Your task to perform on an android device: Open Google Maps and go to "Timeline" Image 0: 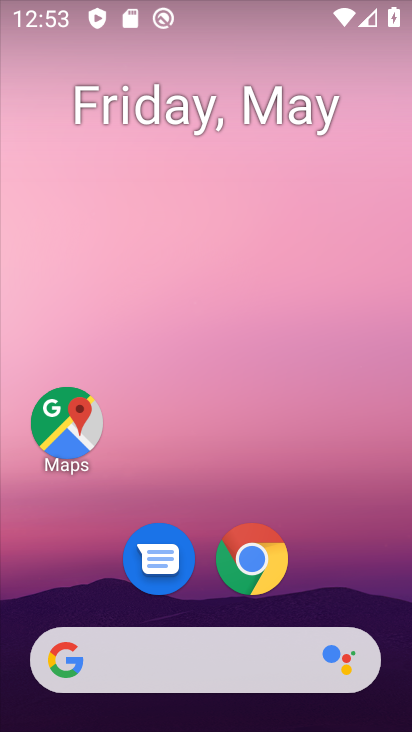
Step 0: click (60, 418)
Your task to perform on an android device: Open Google Maps and go to "Timeline" Image 1: 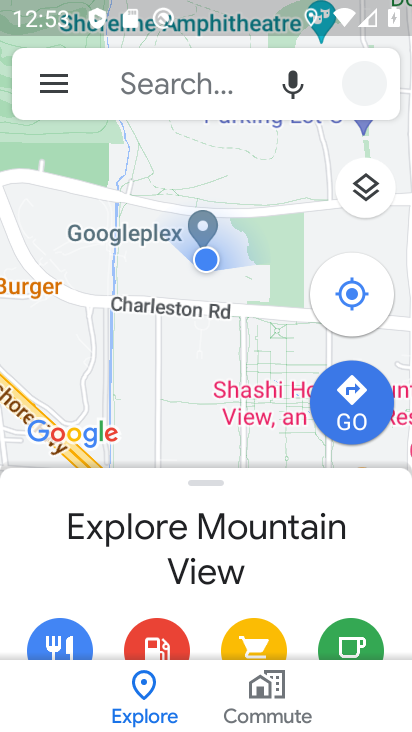
Step 1: click (24, 70)
Your task to perform on an android device: Open Google Maps and go to "Timeline" Image 2: 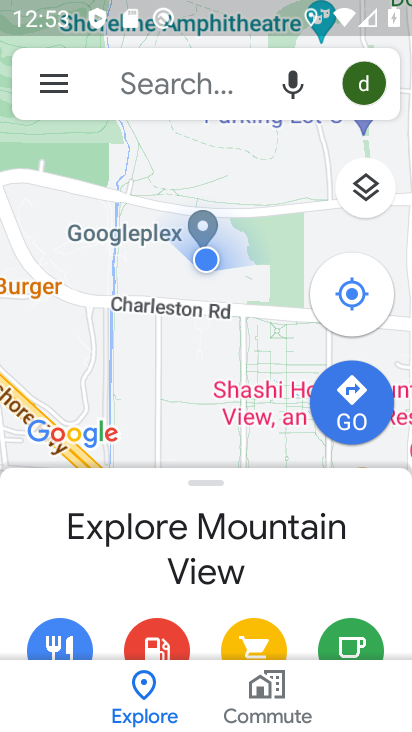
Step 2: click (44, 73)
Your task to perform on an android device: Open Google Maps and go to "Timeline" Image 3: 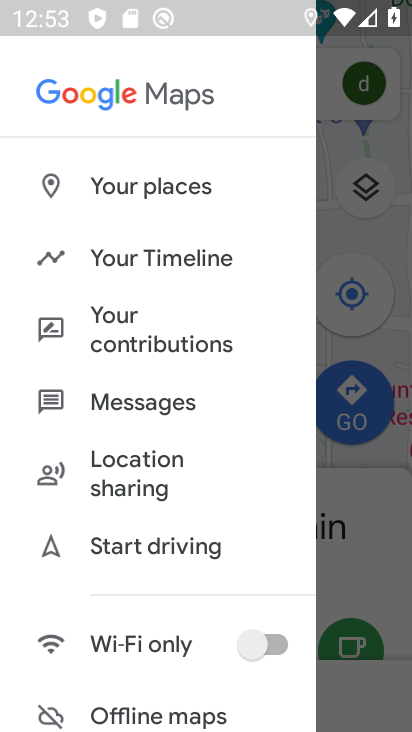
Step 3: click (152, 270)
Your task to perform on an android device: Open Google Maps and go to "Timeline" Image 4: 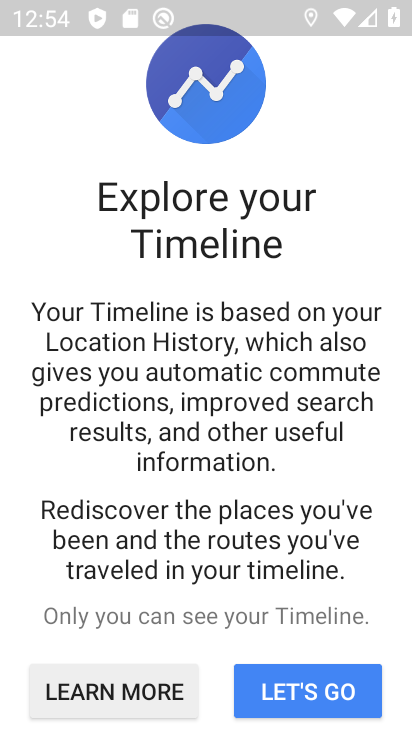
Step 4: click (374, 683)
Your task to perform on an android device: Open Google Maps and go to "Timeline" Image 5: 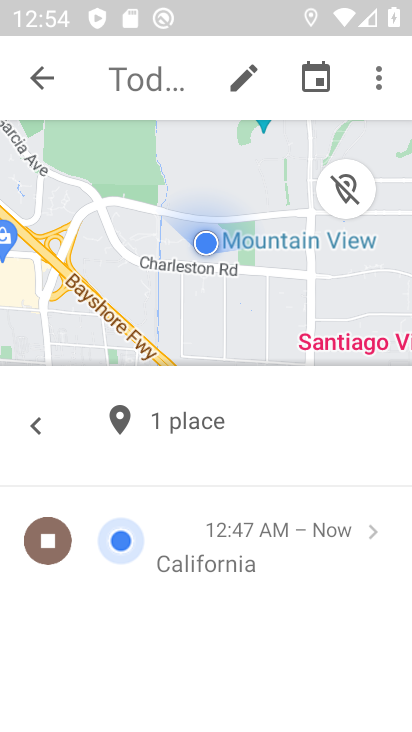
Step 5: task complete